Your task to perform on an android device: What's the weather? Image 0: 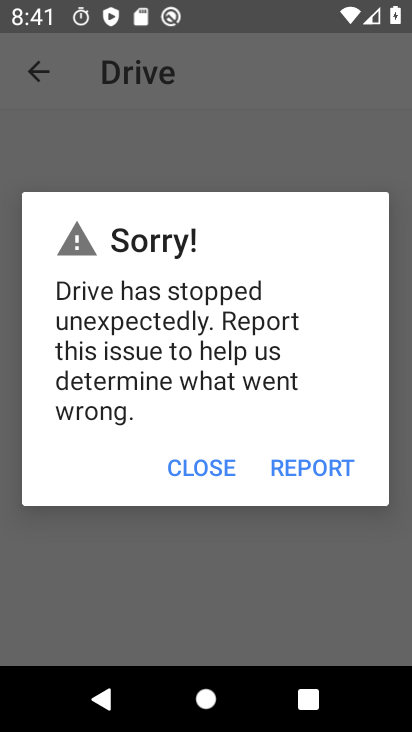
Step 0: press home button
Your task to perform on an android device: What's the weather? Image 1: 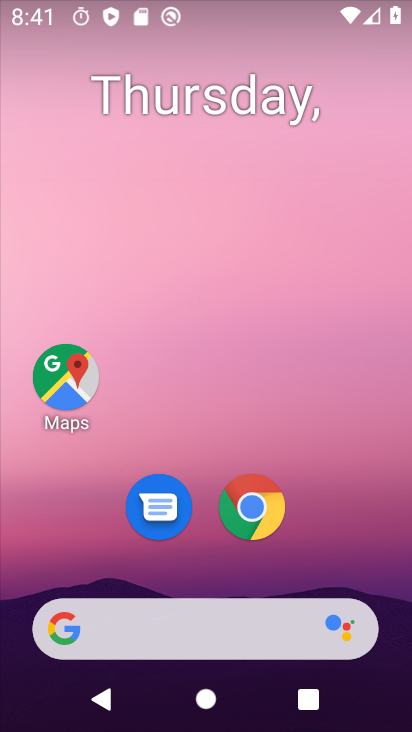
Step 1: click (187, 628)
Your task to perform on an android device: What's the weather? Image 2: 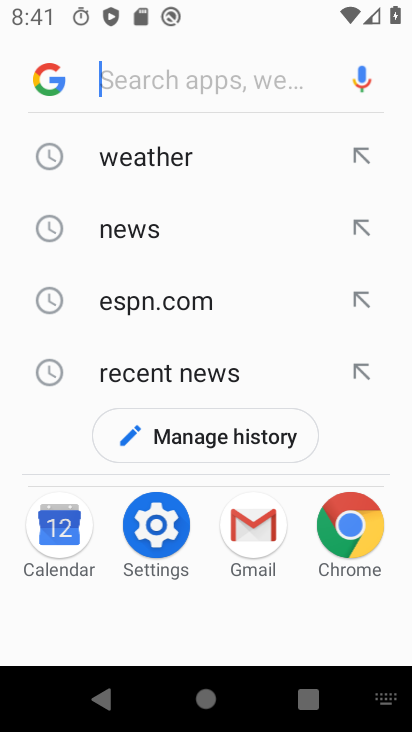
Step 2: click (199, 168)
Your task to perform on an android device: What's the weather? Image 3: 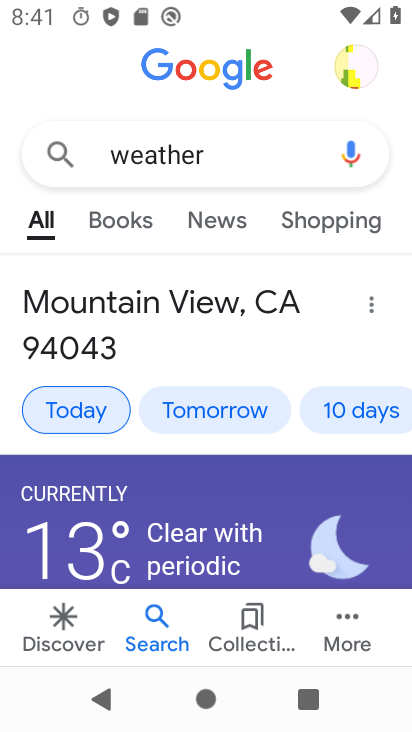
Step 3: task complete